Your task to perform on an android device: all mails in gmail Image 0: 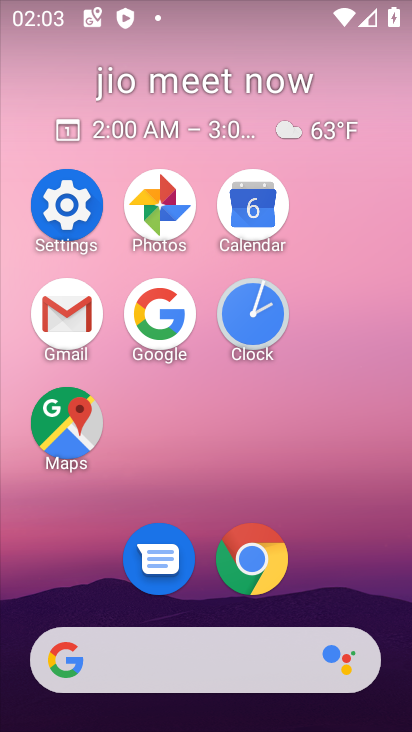
Step 0: click (83, 300)
Your task to perform on an android device: all mails in gmail Image 1: 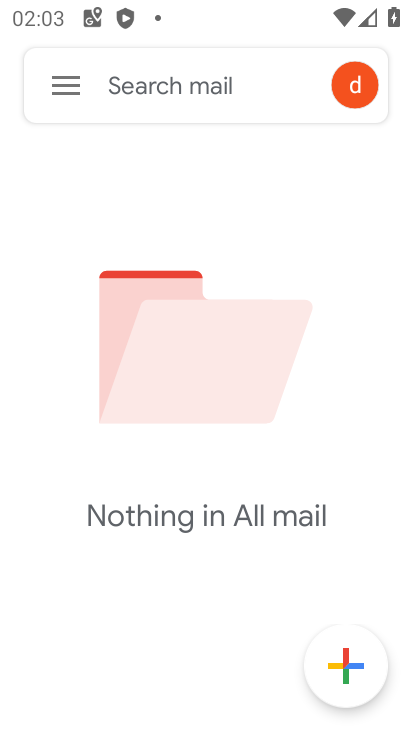
Step 1: click (59, 85)
Your task to perform on an android device: all mails in gmail Image 2: 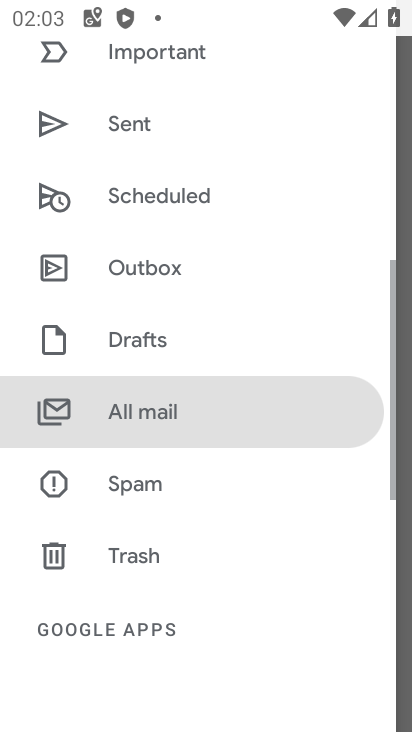
Step 2: click (147, 421)
Your task to perform on an android device: all mails in gmail Image 3: 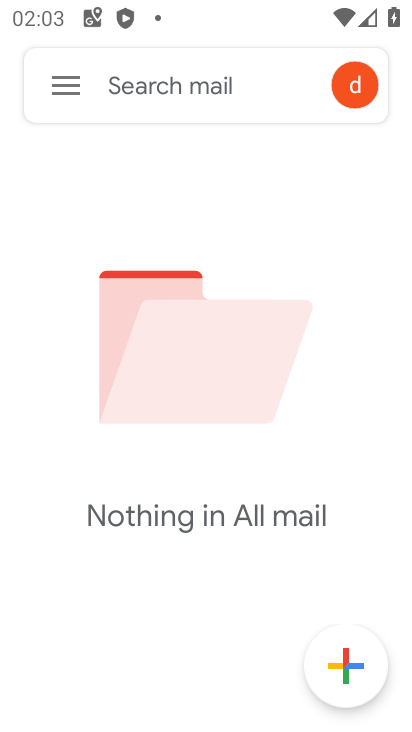
Step 3: task complete